Your task to perform on an android device: Show me the alarms in the clock app Image 0: 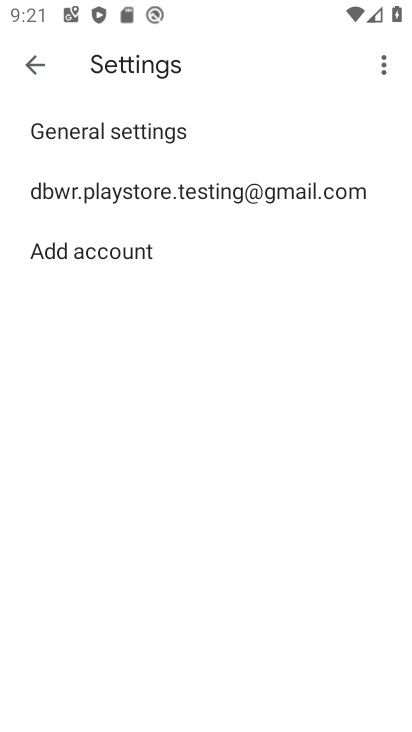
Step 0: press home button
Your task to perform on an android device: Show me the alarms in the clock app Image 1: 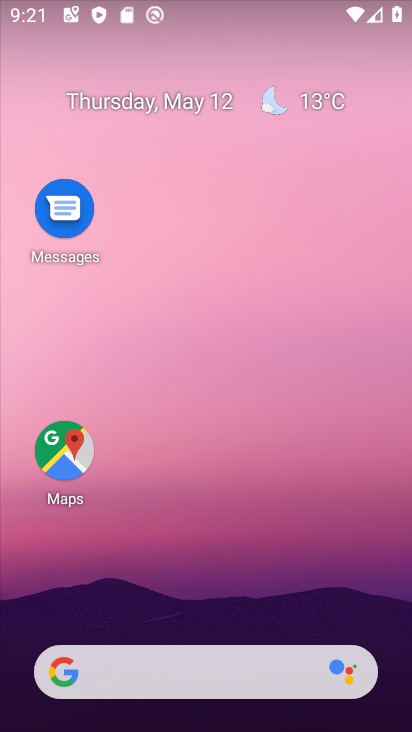
Step 1: drag from (252, 629) to (217, 5)
Your task to perform on an android device: Show me the alarms in the clock app Image 2: 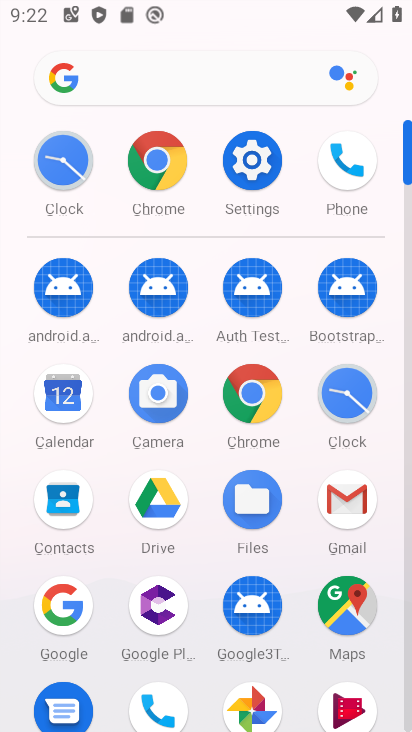
Step 2: click (356, 373)
Your task to perform on an android device: Show me the alarms in the clock app Image 3: 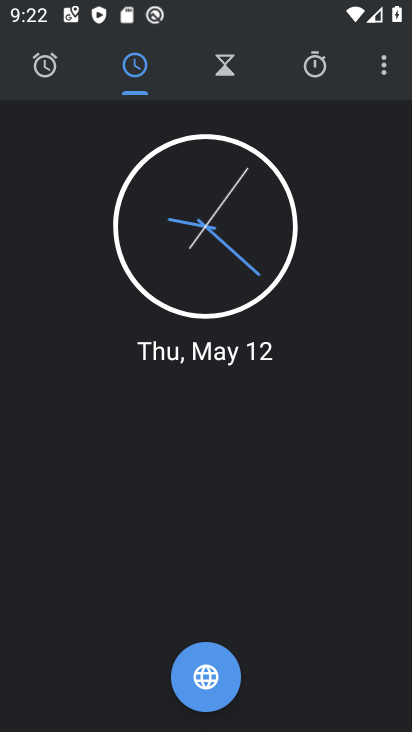
Step 3: click (49, 60)
Your task to perform on an android device: Show me the alarms in the clock app Image 4: 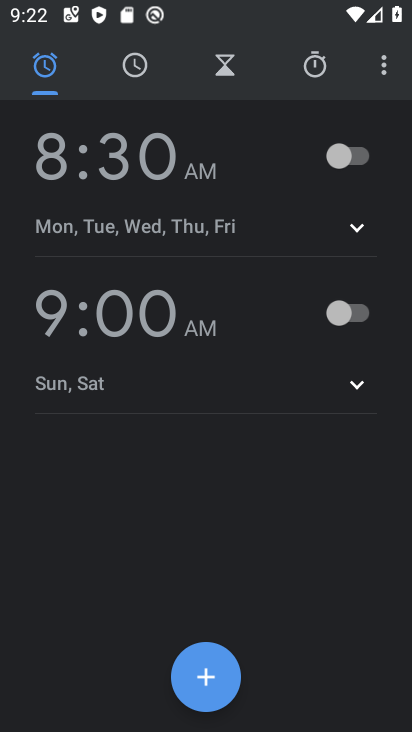
Step 4: click (204, 688)
Your task to perform on an android device: Show me the alarms in the clock app Image 5: 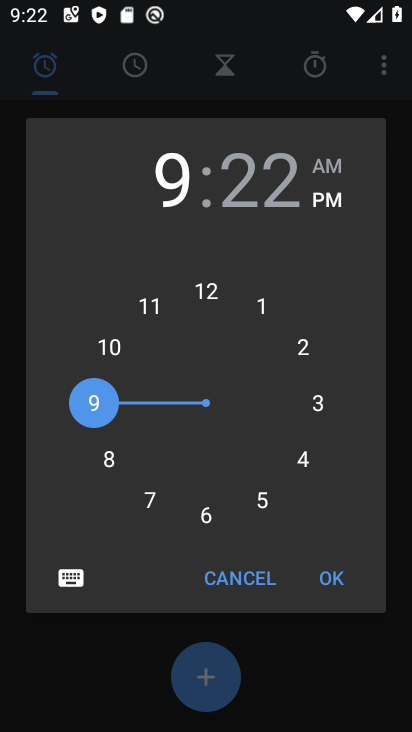
Step 5: click (246, 594)
Your task to perform on an android device: Show me the alarms in the clock app Image 6: 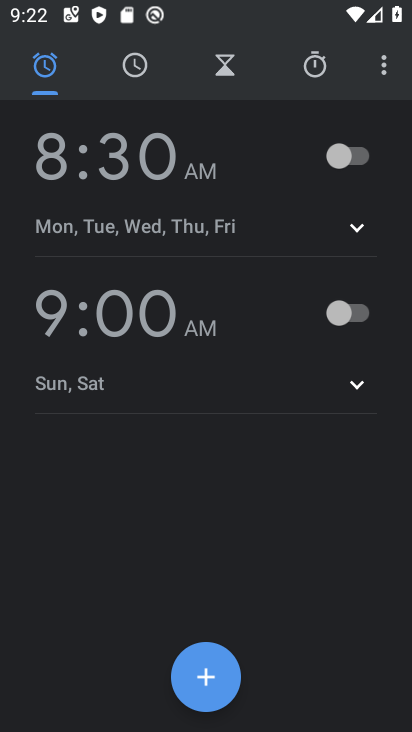
Step 6: task complete